Your task to perform on an android device: toggle notification dots Image 0: 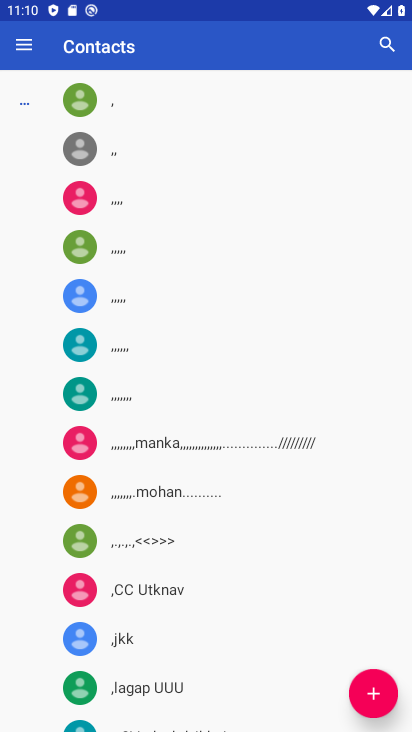
Step 0: press home button
Your task to perform on an android device: toggle notification dots Image 1: 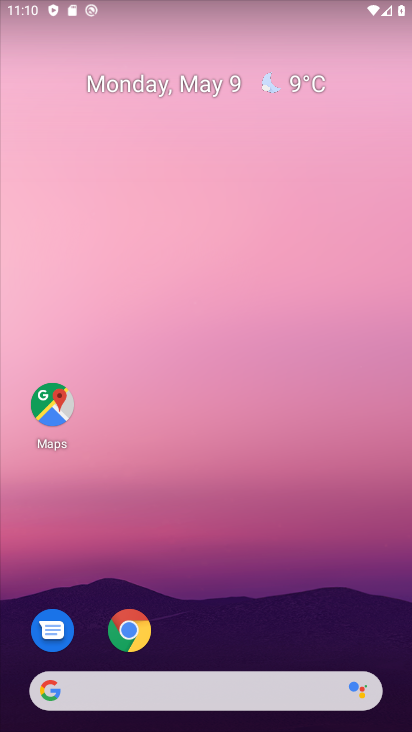
Step 1: drag from (235, 575) to (202, 206)
Your task to perform on an android device: toggle notification dots Image 2: 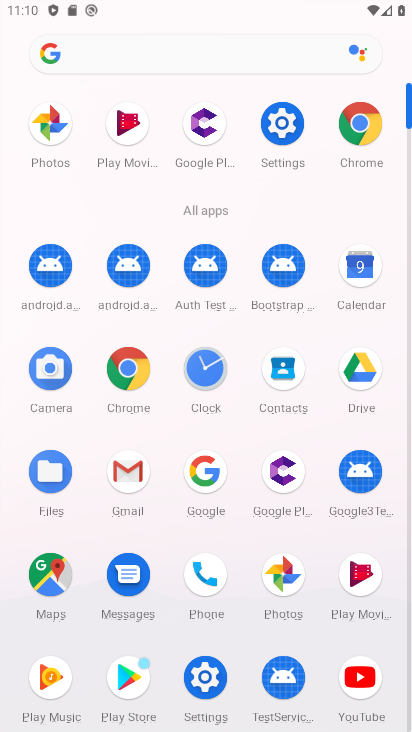
Step 2: click (275, 120)
Your task to perform on an android device: toggle notification dots Image 3: 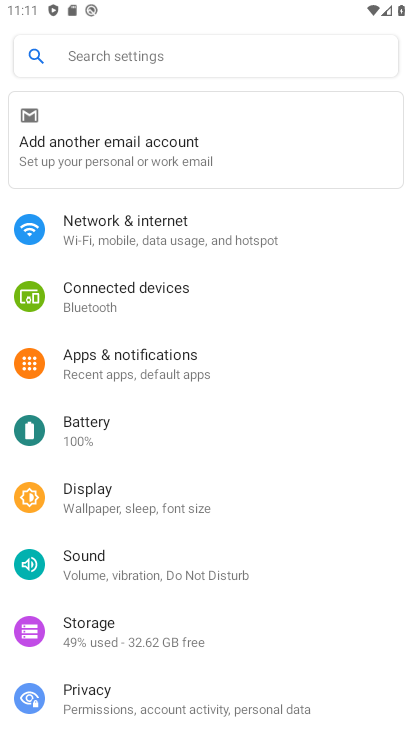
Step 3: click (139, 353)
Your task to perform on an android device: toggle notification dots Image 4: 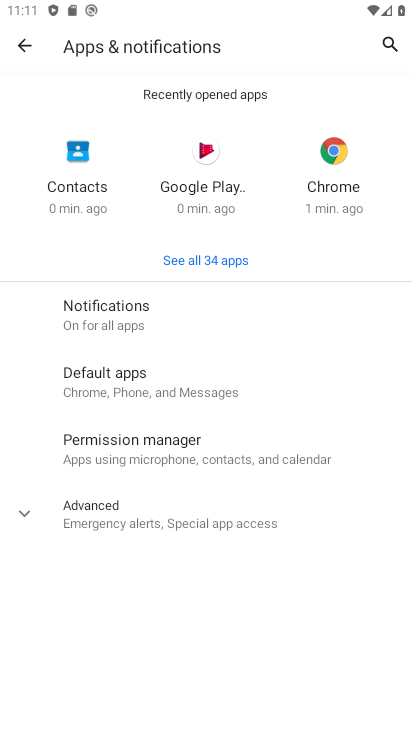
Step 4: click (111, 304)
Your task to perform on an android device: toggle notification dots Image 5: 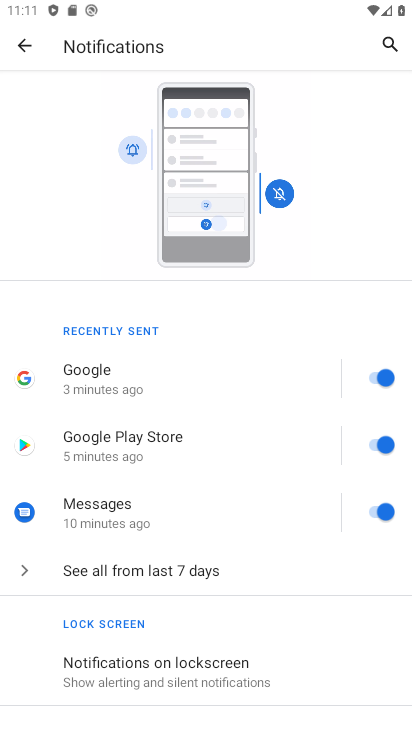
Step 5: drag from (266, 607) to (243, 241)
Your task to perform on an android device: toggle notification dots Image 6: 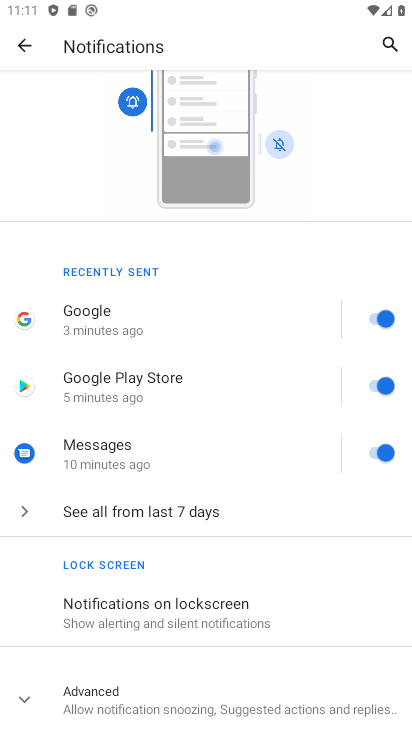
Step 6: drag from (251, 563) to (237, 288)
Your task to perform on an android device: toggle notification dots Image 7: 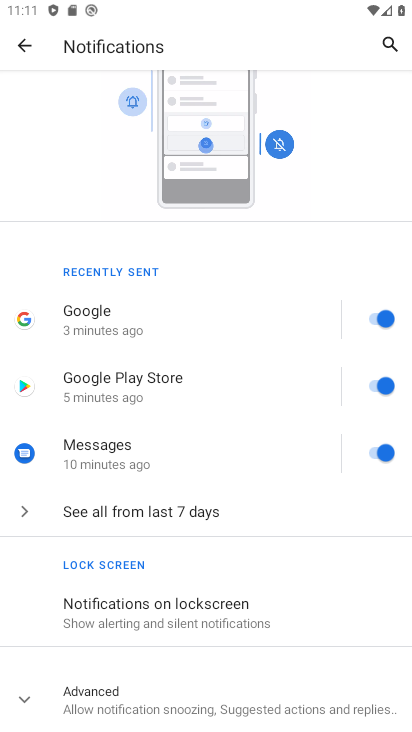
Step 7: click (48, 706)
Your task to perform on an android device: toggle notification dots Image 8: 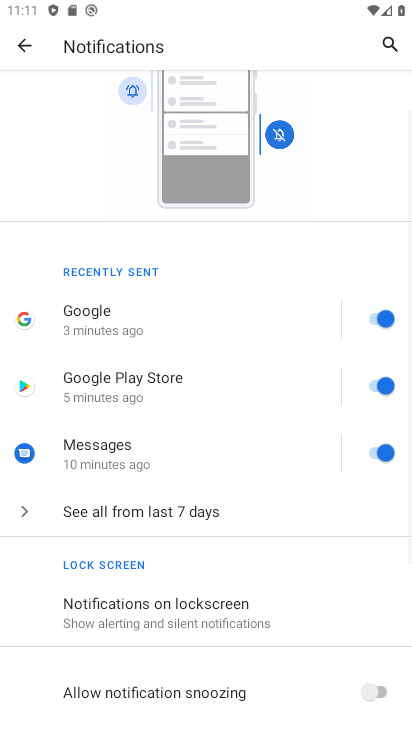
Step 8: drag from (153, 642) to (121, 384)
Your task to perform on an android device: toggle notification dots Image 9: 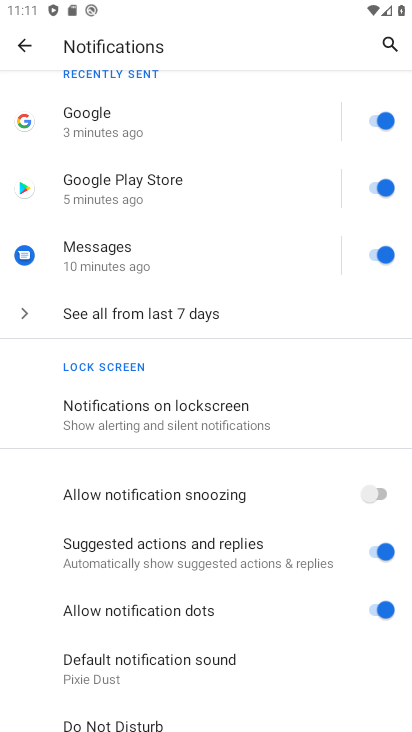
Step 9: click (386, 607)
Your task to perform on an android device: toggle notification dots Image 10: 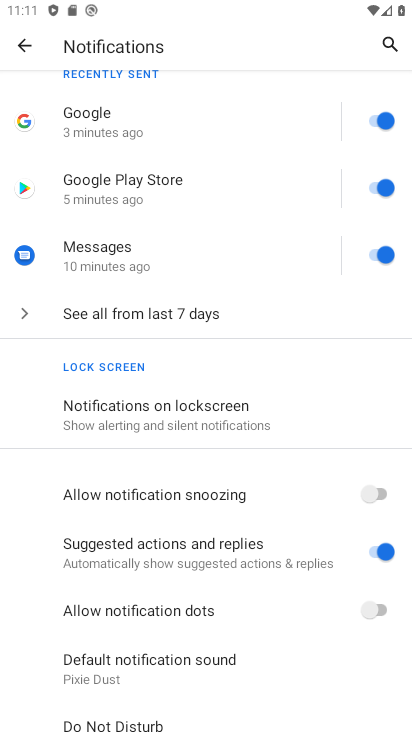
Step 10: task complete